Your task to perform on an android device: Play the last video I watched on Youtube Image 0: 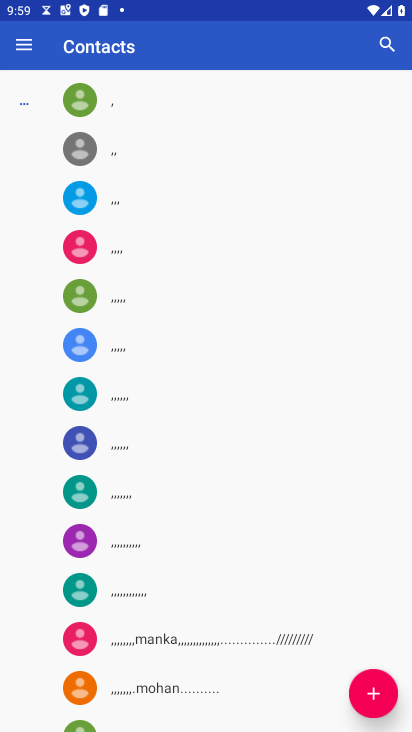
Step 0: press home button
Your task to perform on an android device: Play the last video I watched on Youtube Image 1: 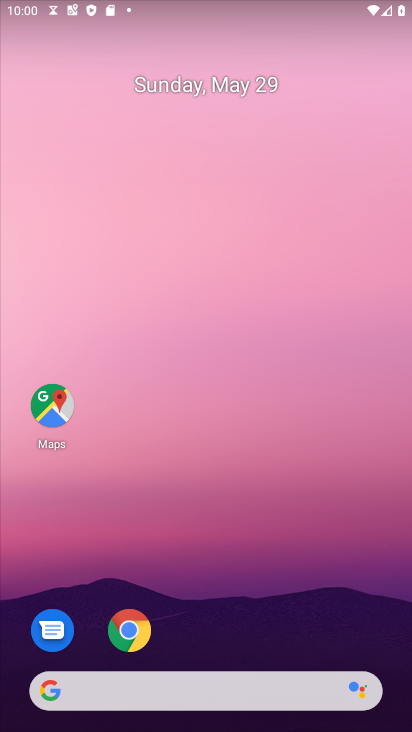
Step 1: drag from (258, 610) to (197, 39)
Your task to perform on an android device: Play the last video I watched on Youtube Image 2: 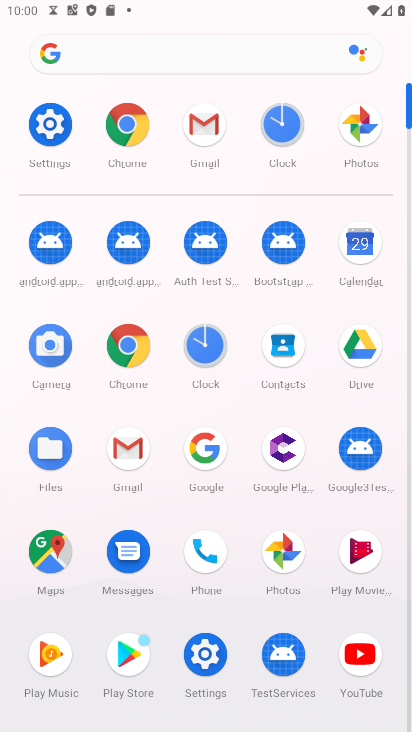
Step 2: click (370, 651)
Your task to perform on an android device: Play the last video I watched on Youtube Image 3: 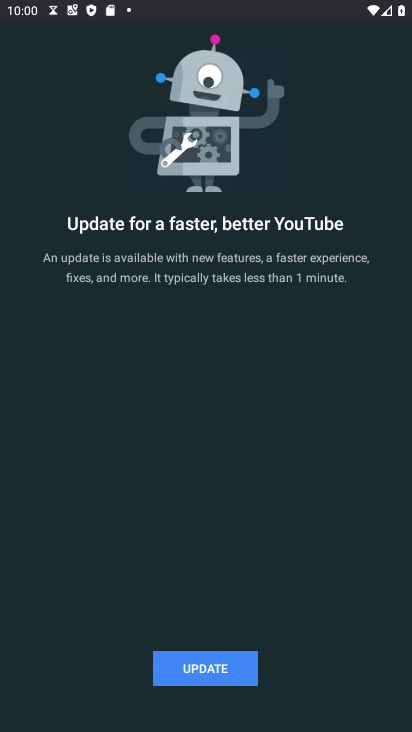
Step 3: click (214, 665)
Your task to perform on an android device: Play the last video I watched on Youtube Image 4: 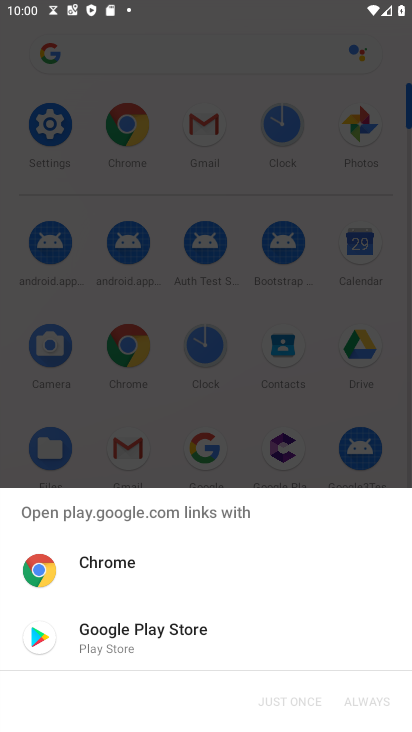
Step 4: click (214, 644)
Your task to perform on an android device: Play the last video I watched on Youtube Image 5: 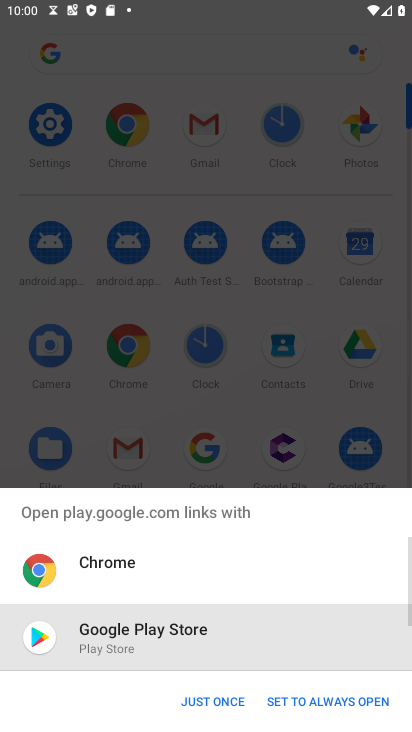
Step 5: click (219, 701)
Your task to perform on an android device: Play the last video I watched on Youtube Image 6: 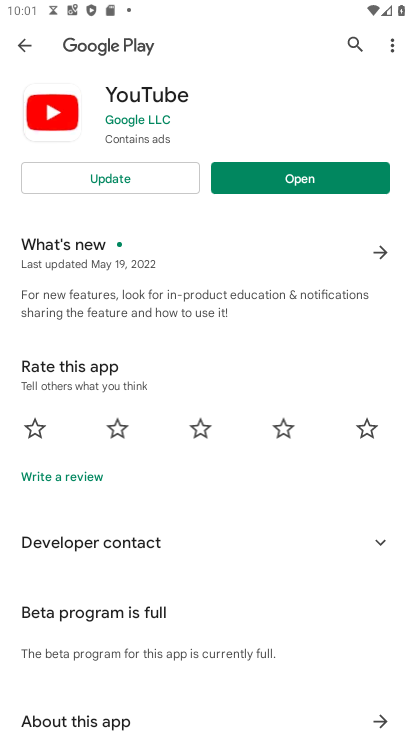
Step 6: click (150, 184)
Your task to perform on an android device: Play the last video I watched on Youtube Image 7: 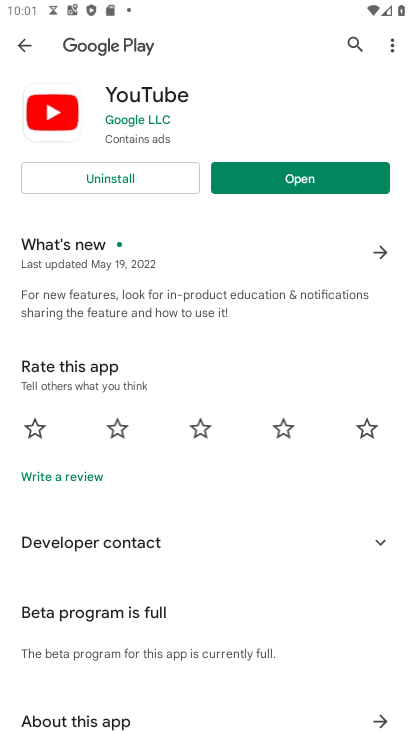
Step 7: click (304, 173)
Your task to perform on an android device: Play the last video I watched on Youtube Image 8: 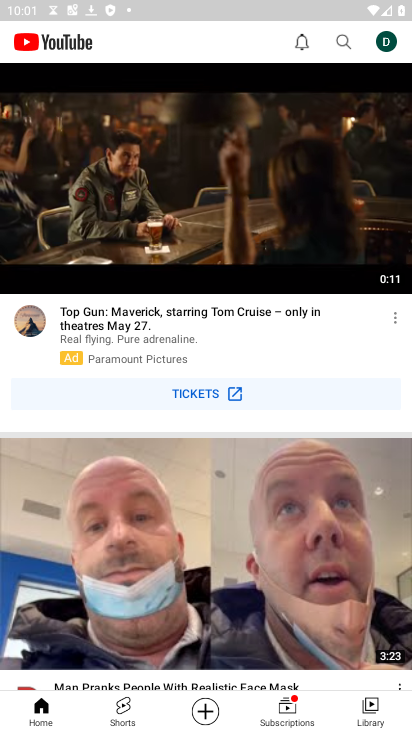
Step 8: click (372, 707)
Your task to perform on an android device: Play the last video I watched on Youtube Image 9: 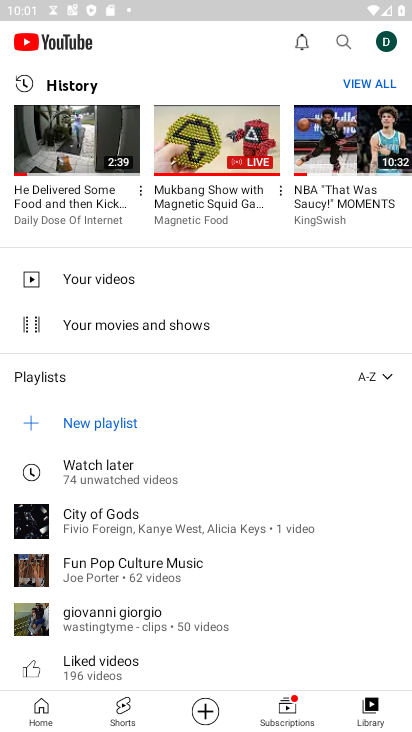
Step 9: click (96, 149)
Your task to perform on an android device: Play the last video I watched on Youtube Image 10: 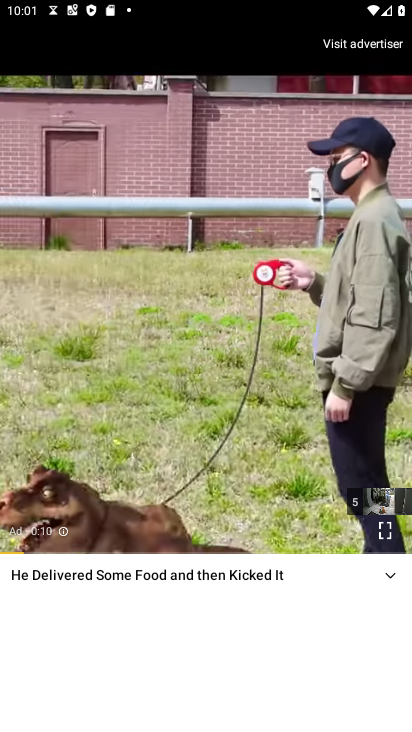
Step 10: task complete